Your task to perform on an android device: How do I get to the nearest Sprint Store? Image 0: 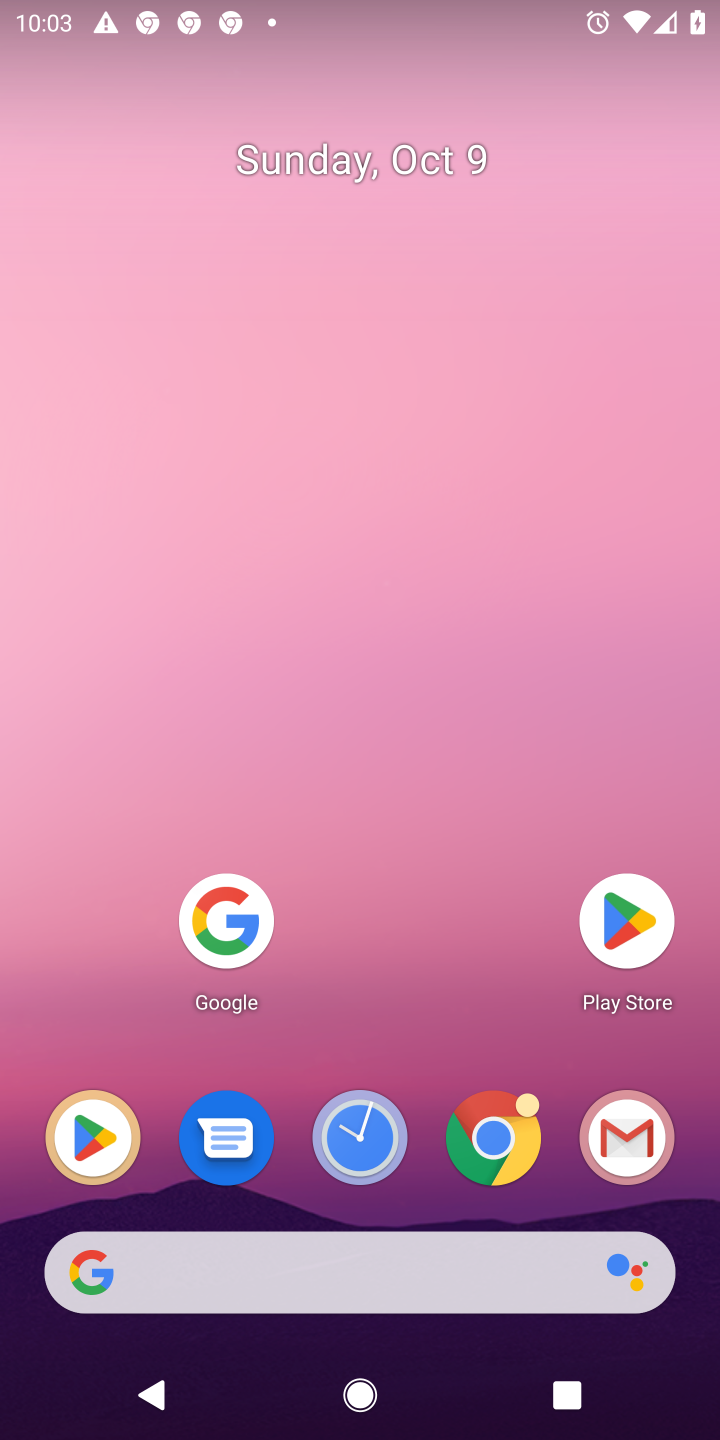
Step 0: click (226, 895)
Your task to perform on an android device: How do I get to the nearest Sprint Store? Image 1: 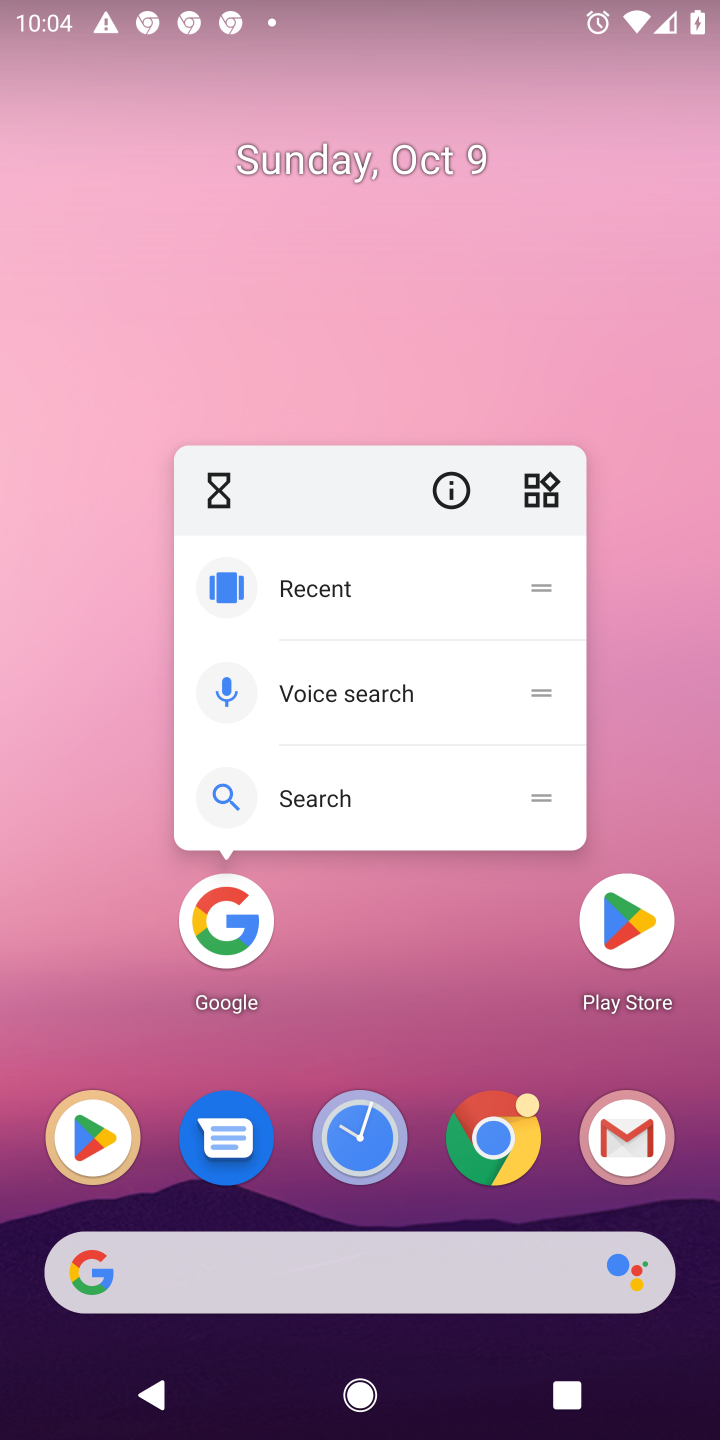
Step 1: click (240, 918)
Your task to perform on an android device: How do I get to the nearest Sprint Store? Image 2: 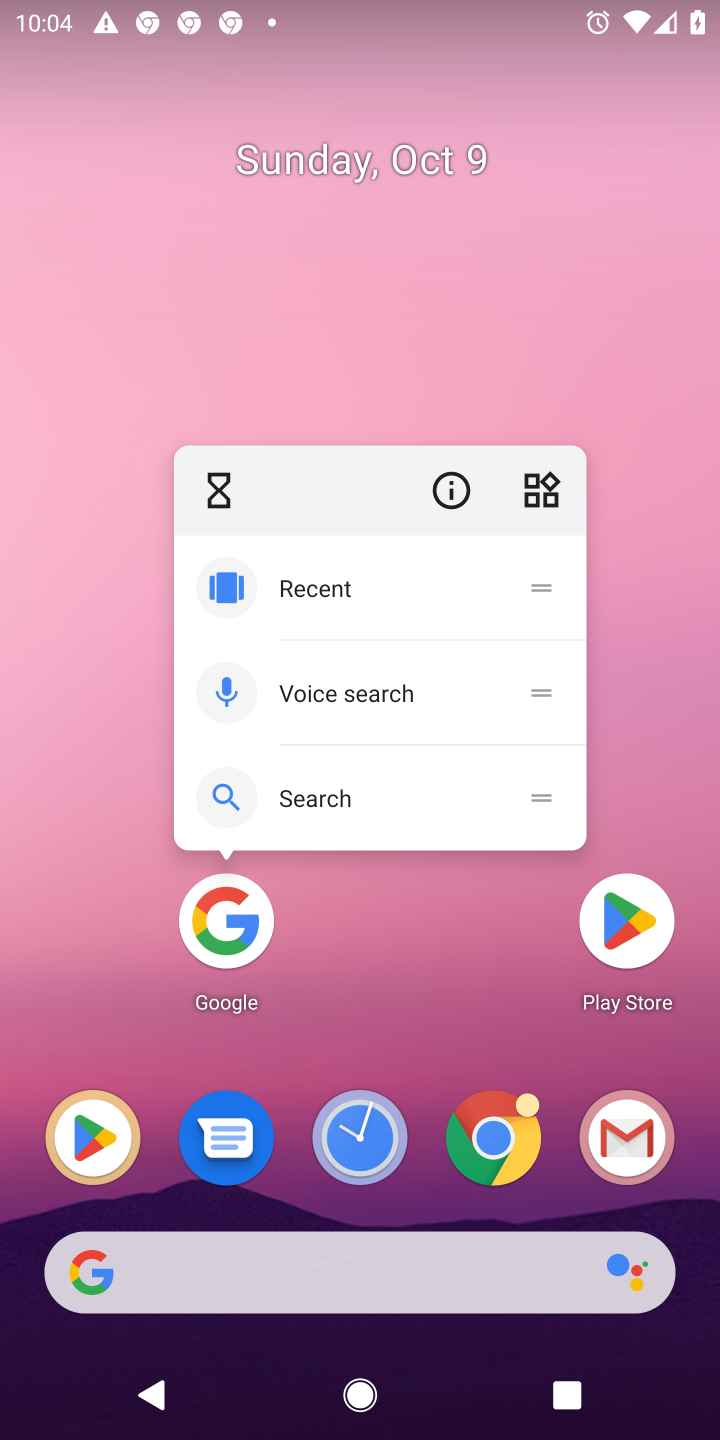
Step 2: click (233, 912)
Your task to perform on an android device: How do I get to the nearest Sprint Store? Image 3: 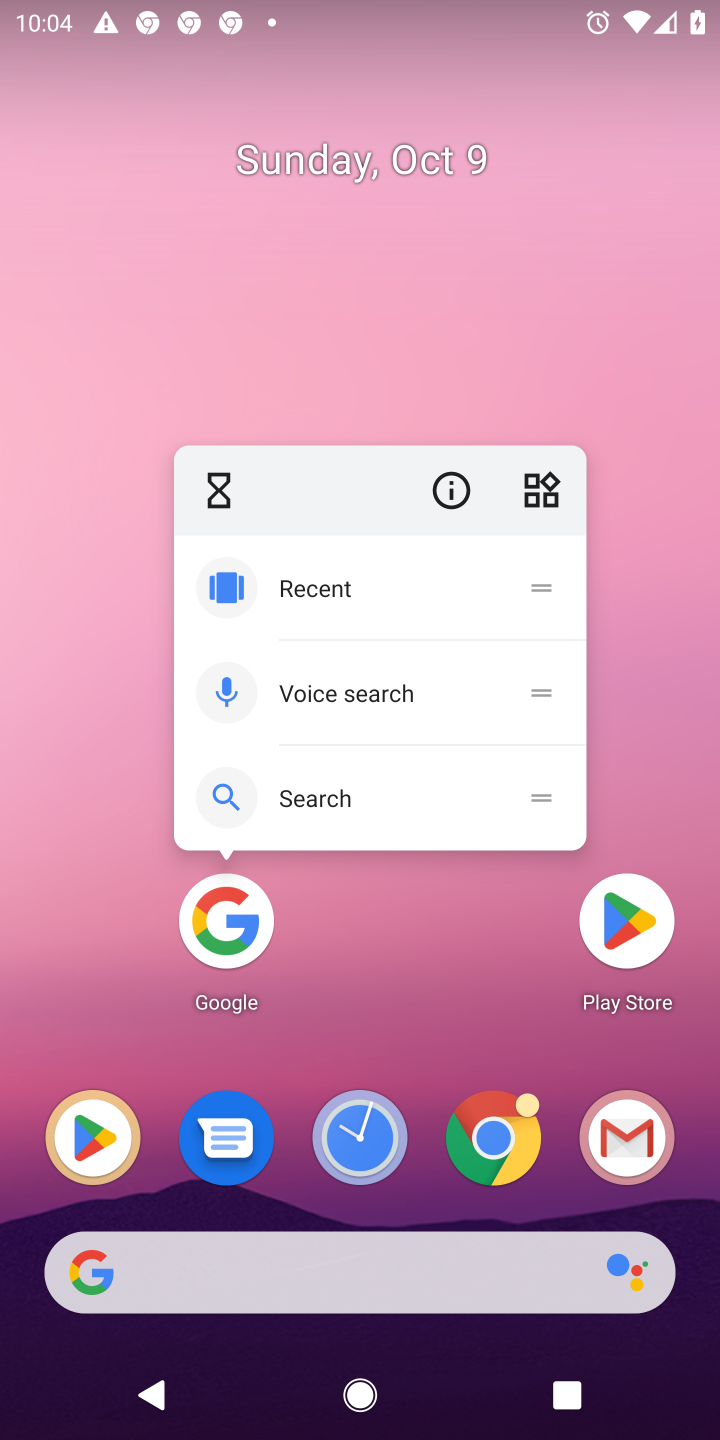
Step 3: click (233, 925)
Your task to perform on an android device: How do I get to the nearest Sprint Store? Image 4: 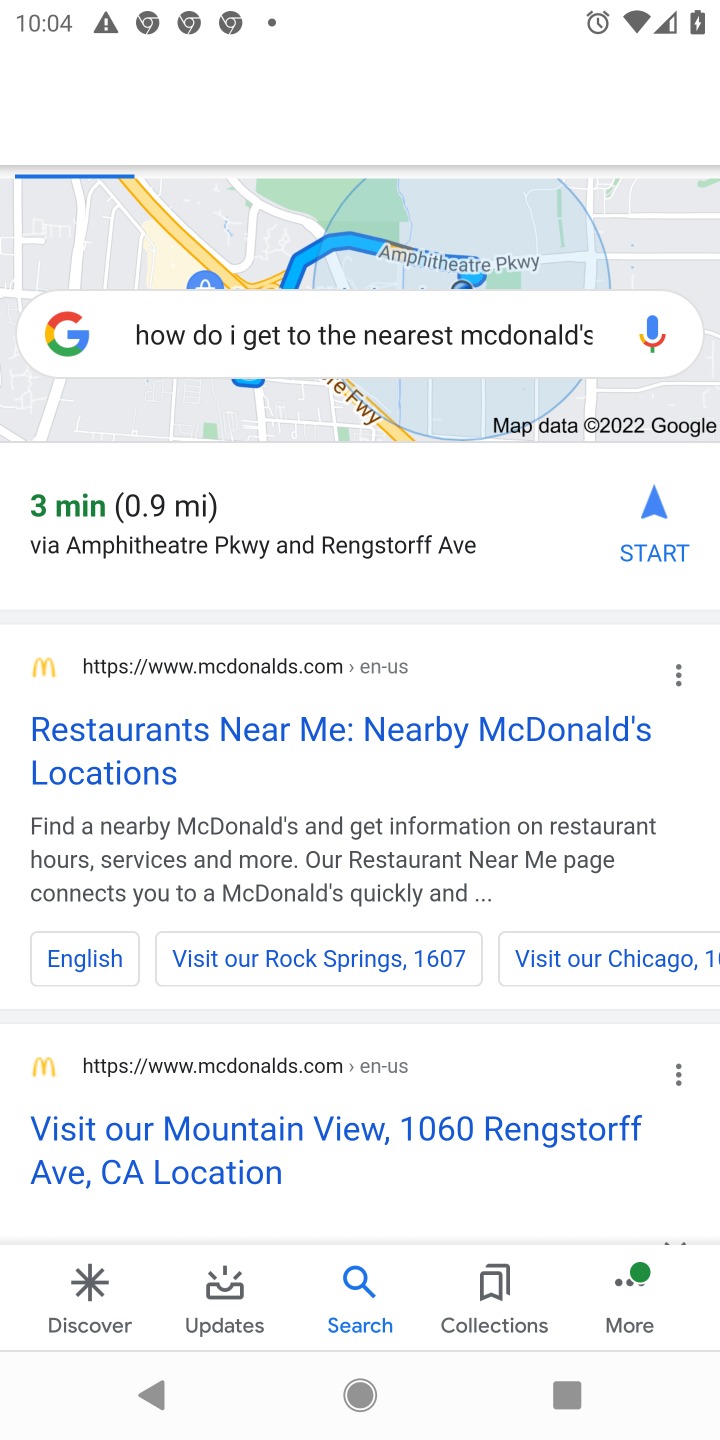
Step 4: click (390, 327)
Your task to perform on an android device: How do I get to the nearest Sprint Store? Image 5: 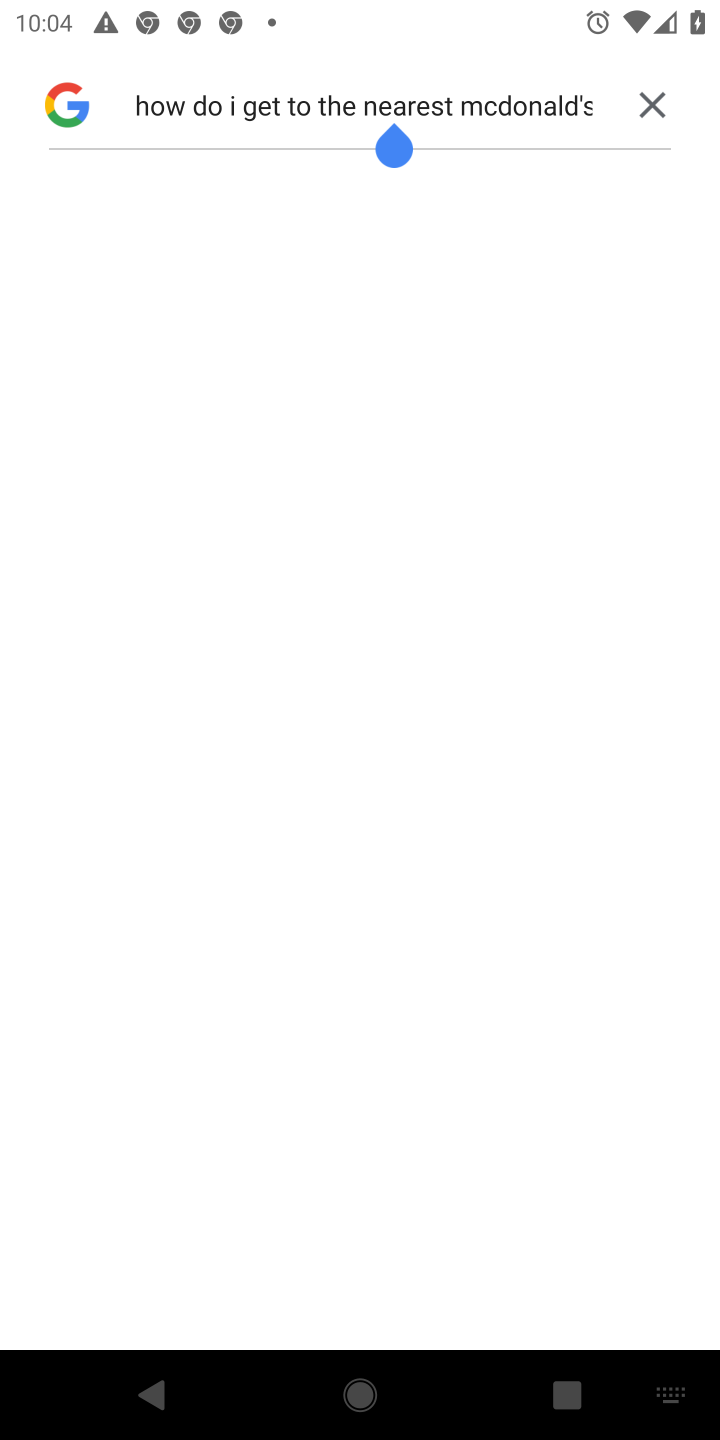
Step 5: click (646, 99)
Your task to perform on an android device: How do I get to the nearest Sprint Store? Image 6: 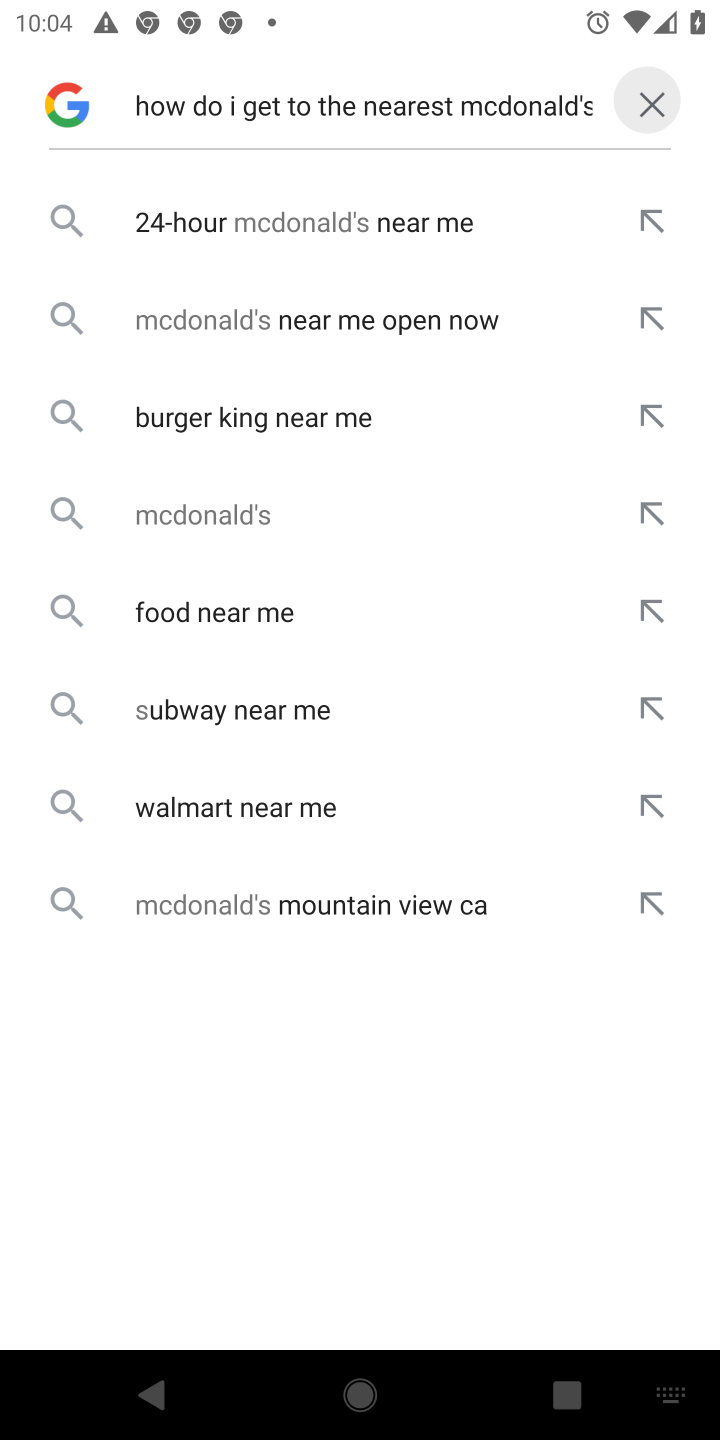
Step 6: click (647, 98)
Your task to perform on an android device: How do I get to the nearest Sprint Store? Image 7: 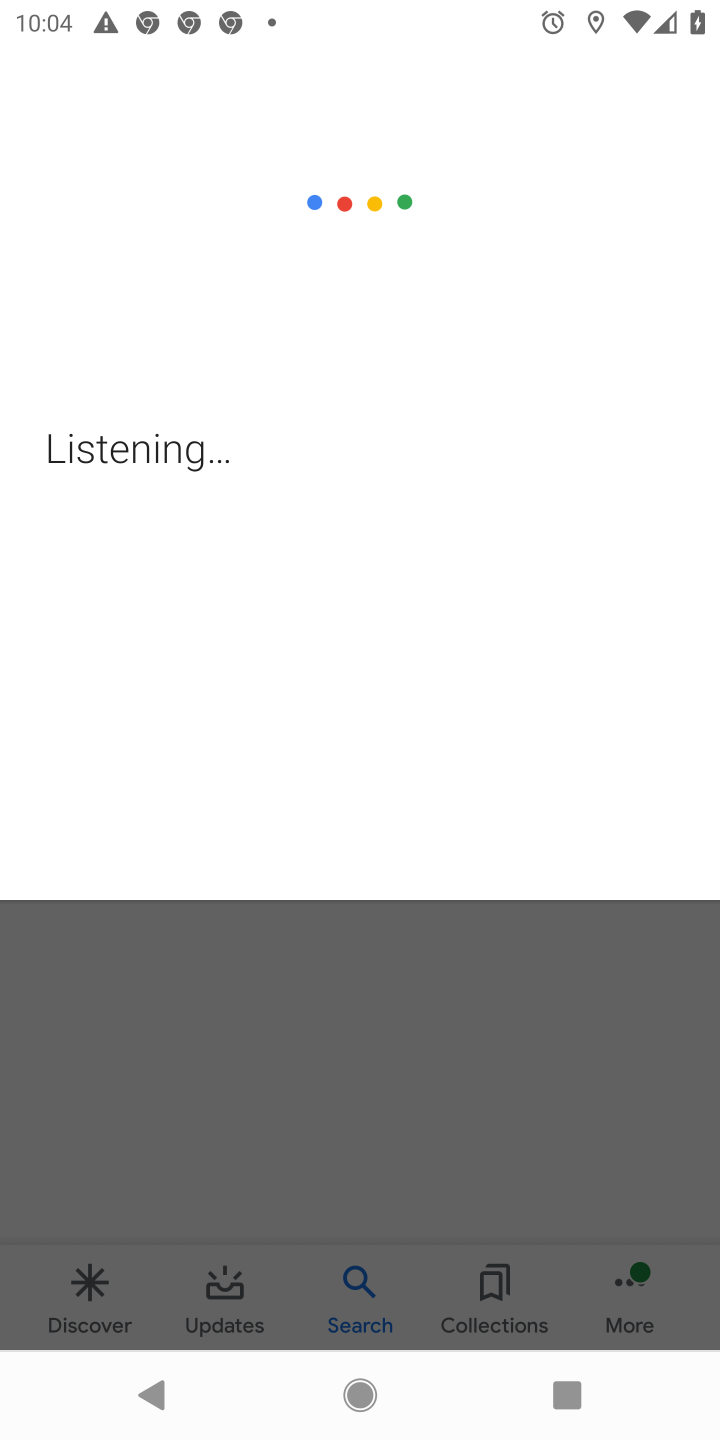
Step 7: press back button
Your task to perform on an android device: How do I get to the nearest Sprint Store? Image 8: 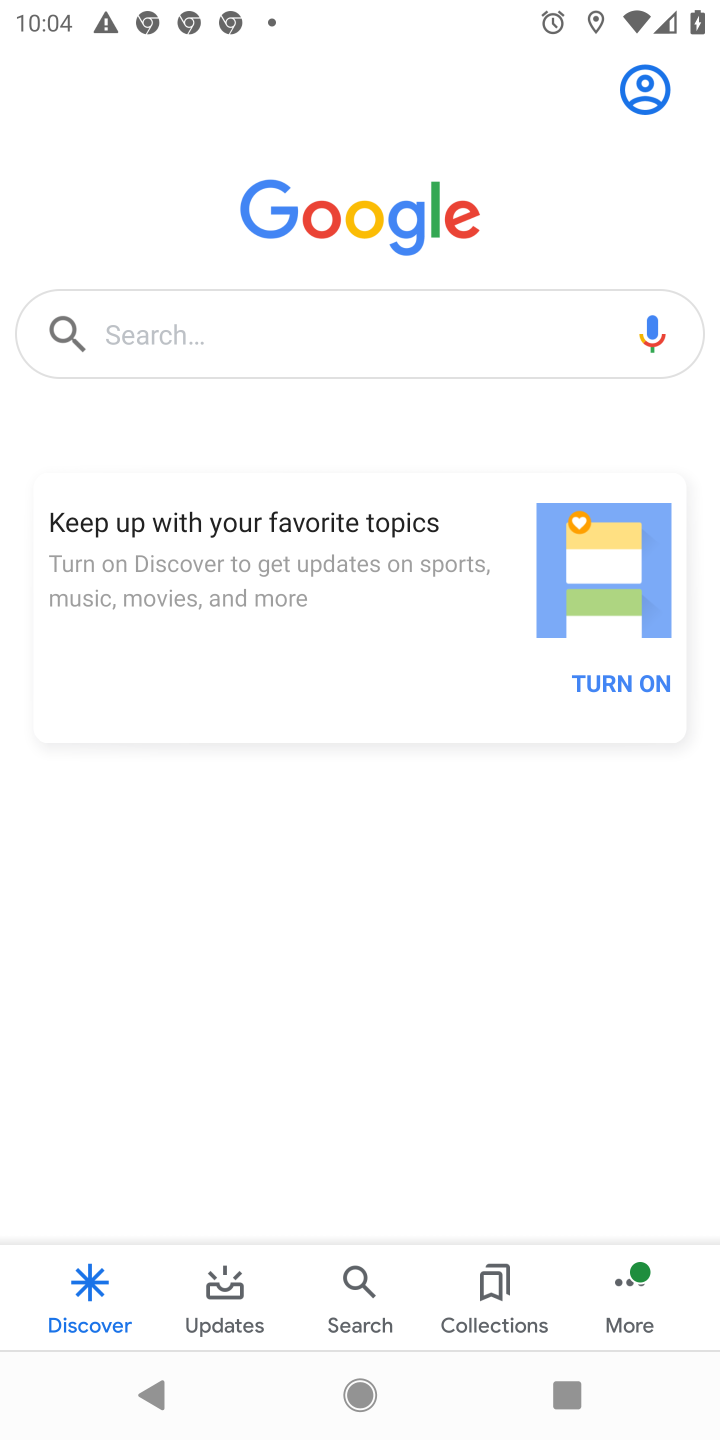
Step 8: click (308, 329)
Your task to perform on an android device: How do I get to the nearest Sprint Store? Image 9: 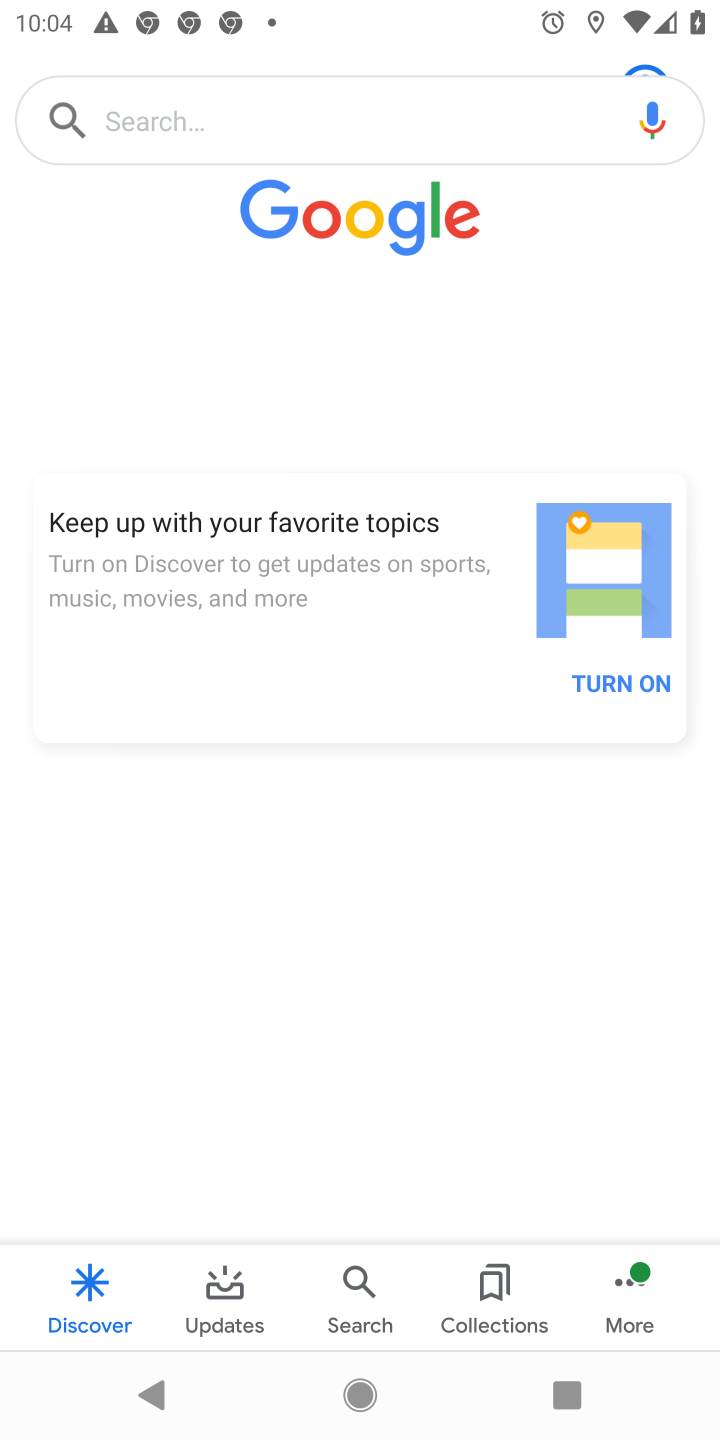
Step 9: click (280, 325)
Your task to perform on an android device: How do I get to the nearest Sprint Store? Image 10: 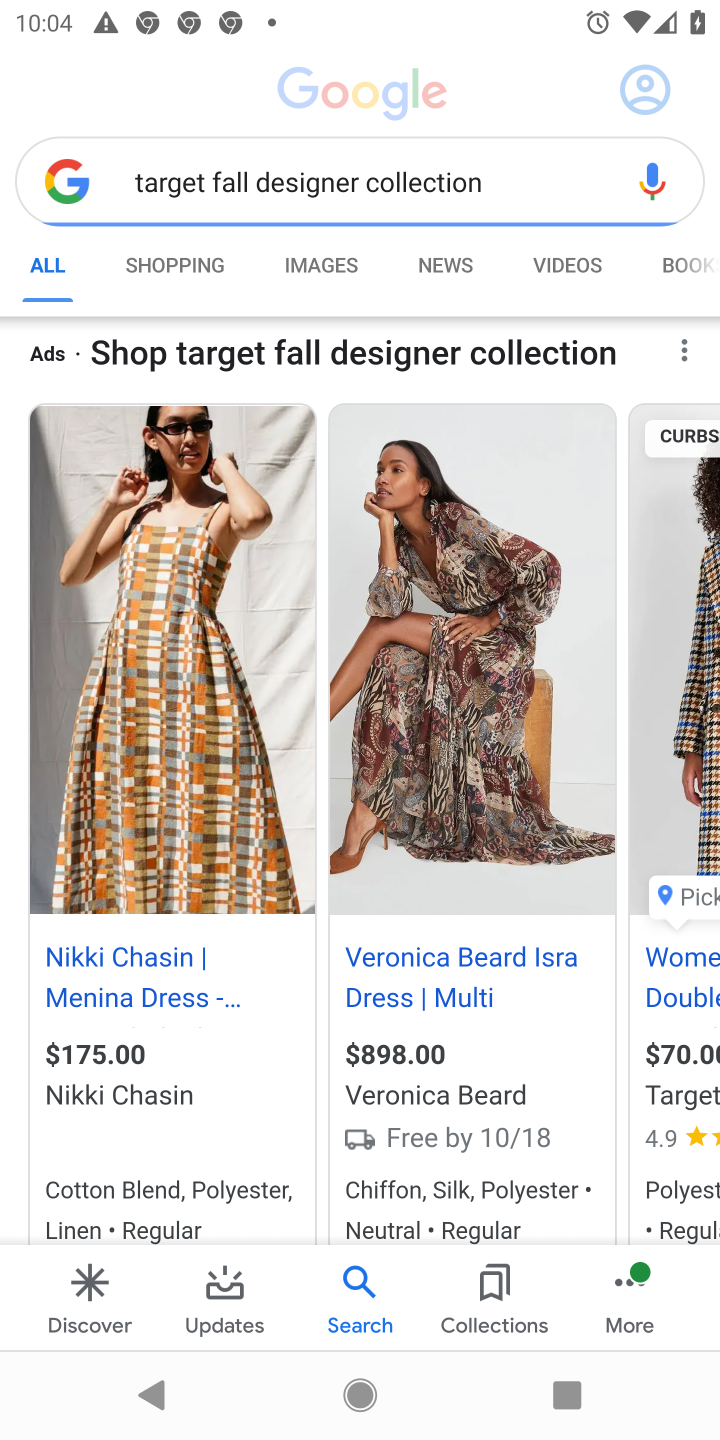
Step 10: type "How do I get to the nearest Sprint Store? "
Your task to perform on an android device: How do I get to the nearest Sprint Store? Image 11: 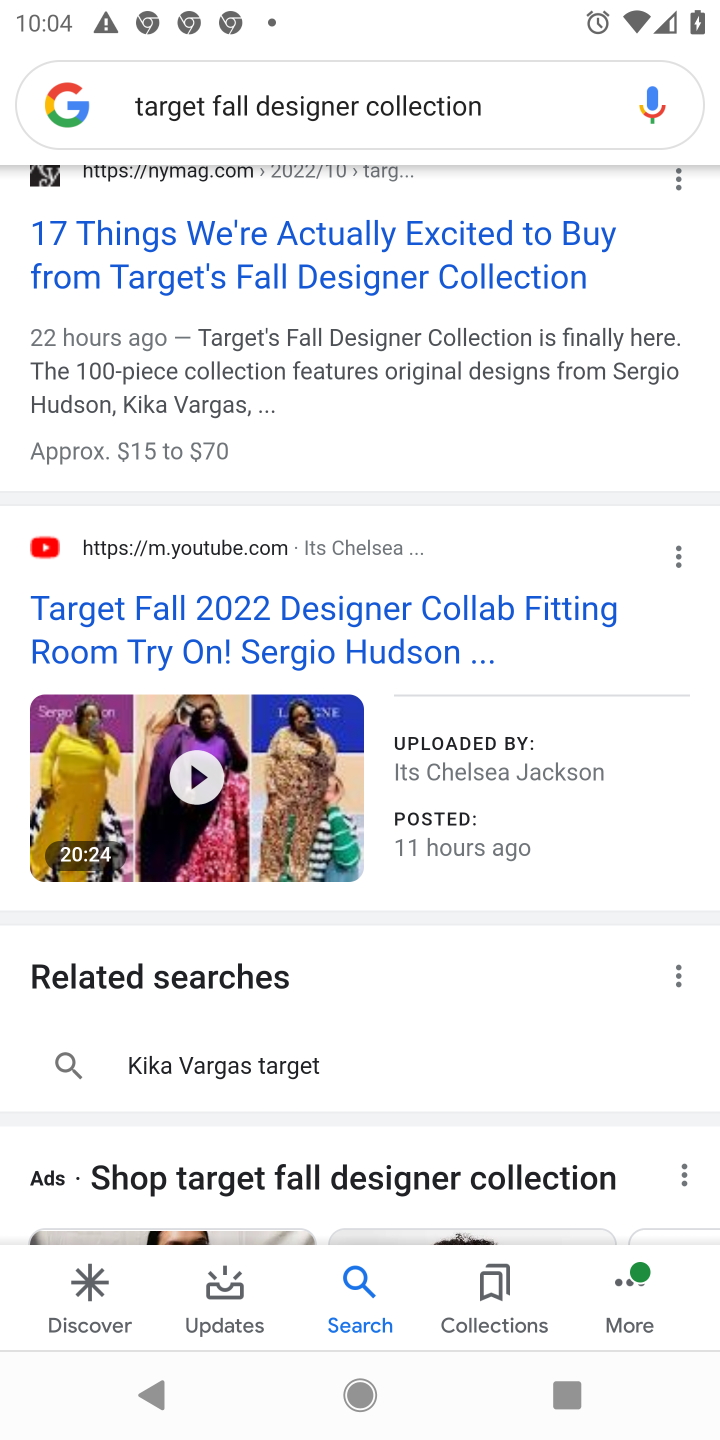
Step 11: click (517, 94)
Your task to perform on an android device: How do I get to the nearest Sprint Store? Image 12: 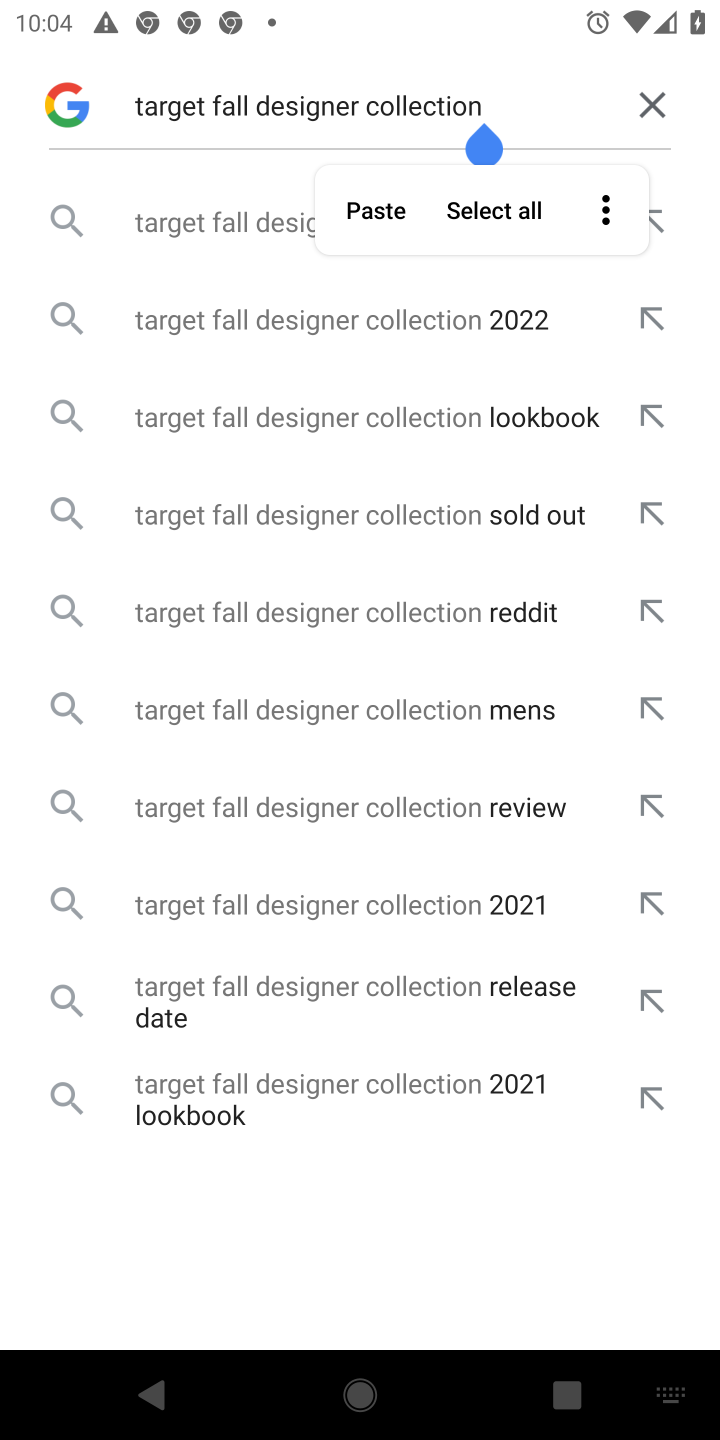
Step 12: click (636, 106)
Your task to perform on an android device: How do I get to the nearest Sprint Store? Image 13: 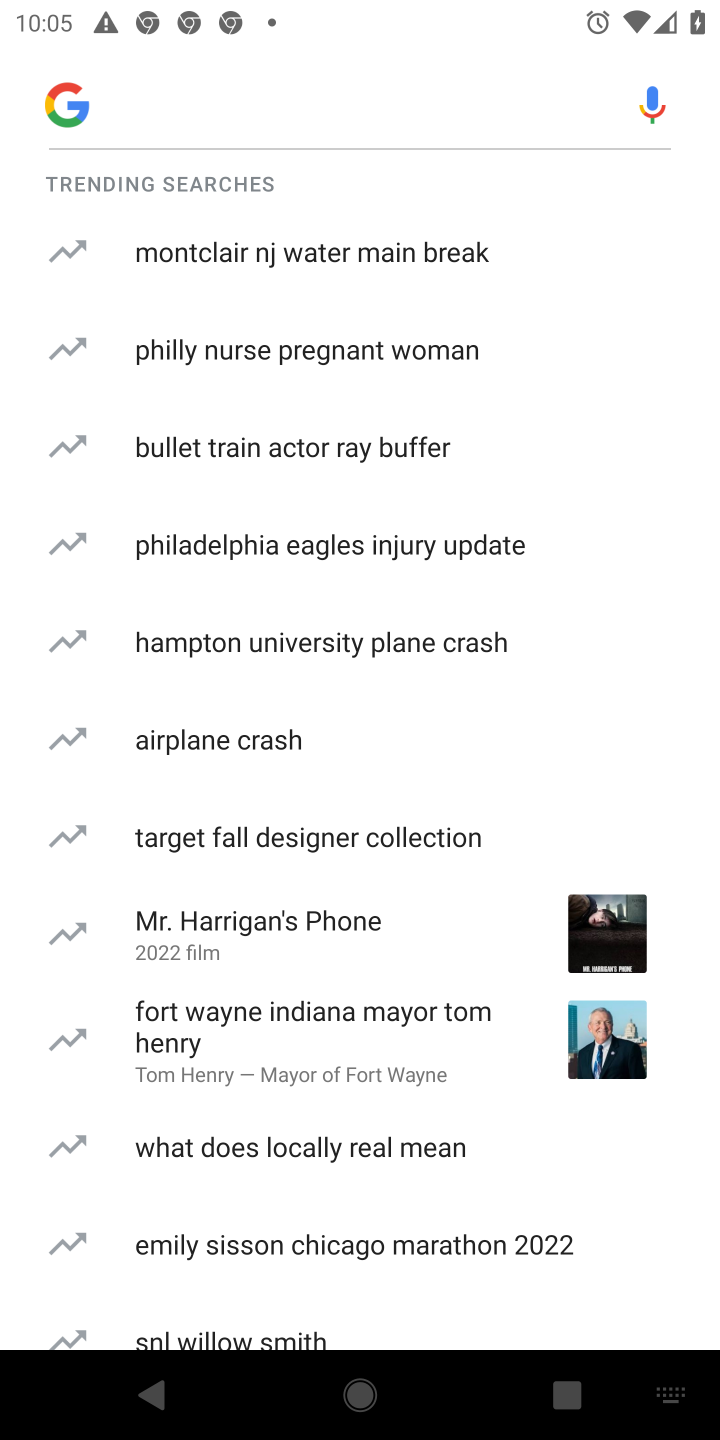
Step 13: click (328, 114)
Your task to perform on an android device: How do I get to the nearest Sprint Store? Image 14: 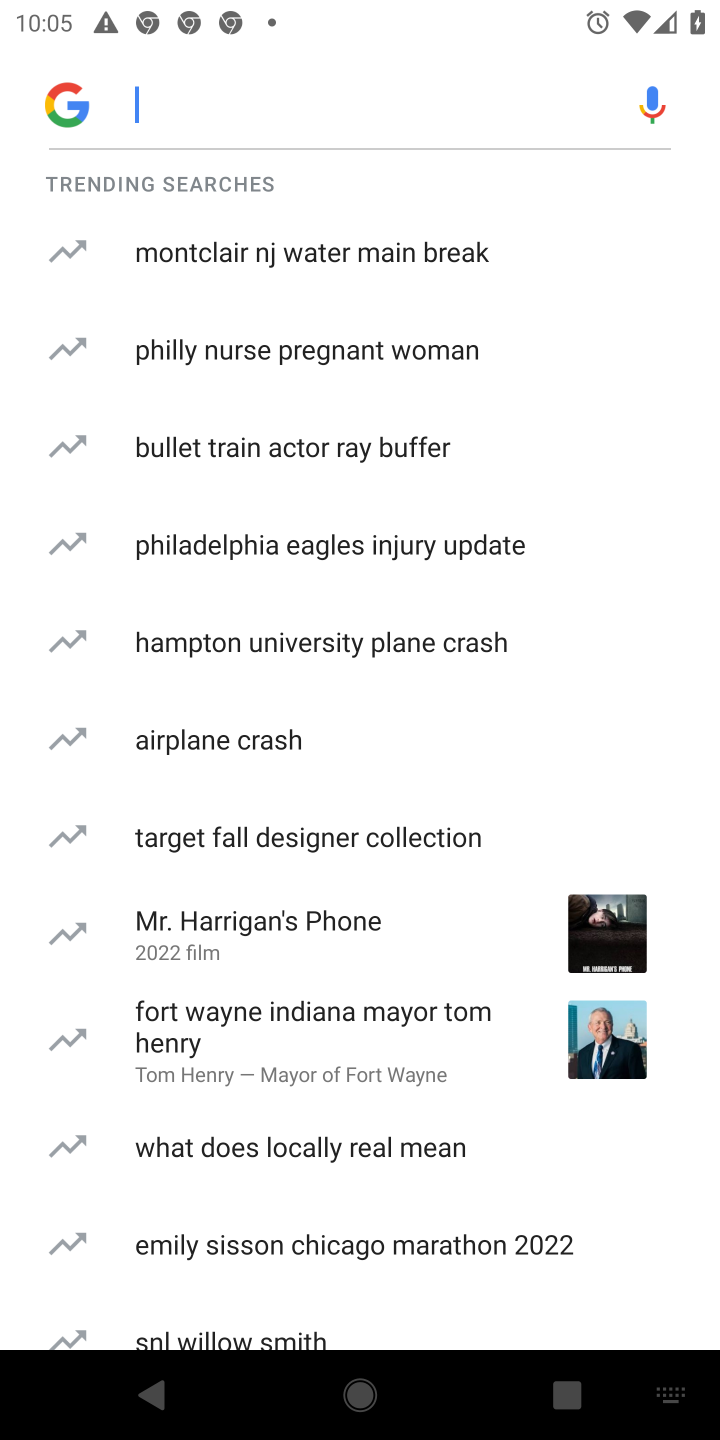
Step 14: type "How do I get to the nearest Sprint Store? "
Your task to perform on an android device: How do I get to the nearest Sprint Store? Image 15: 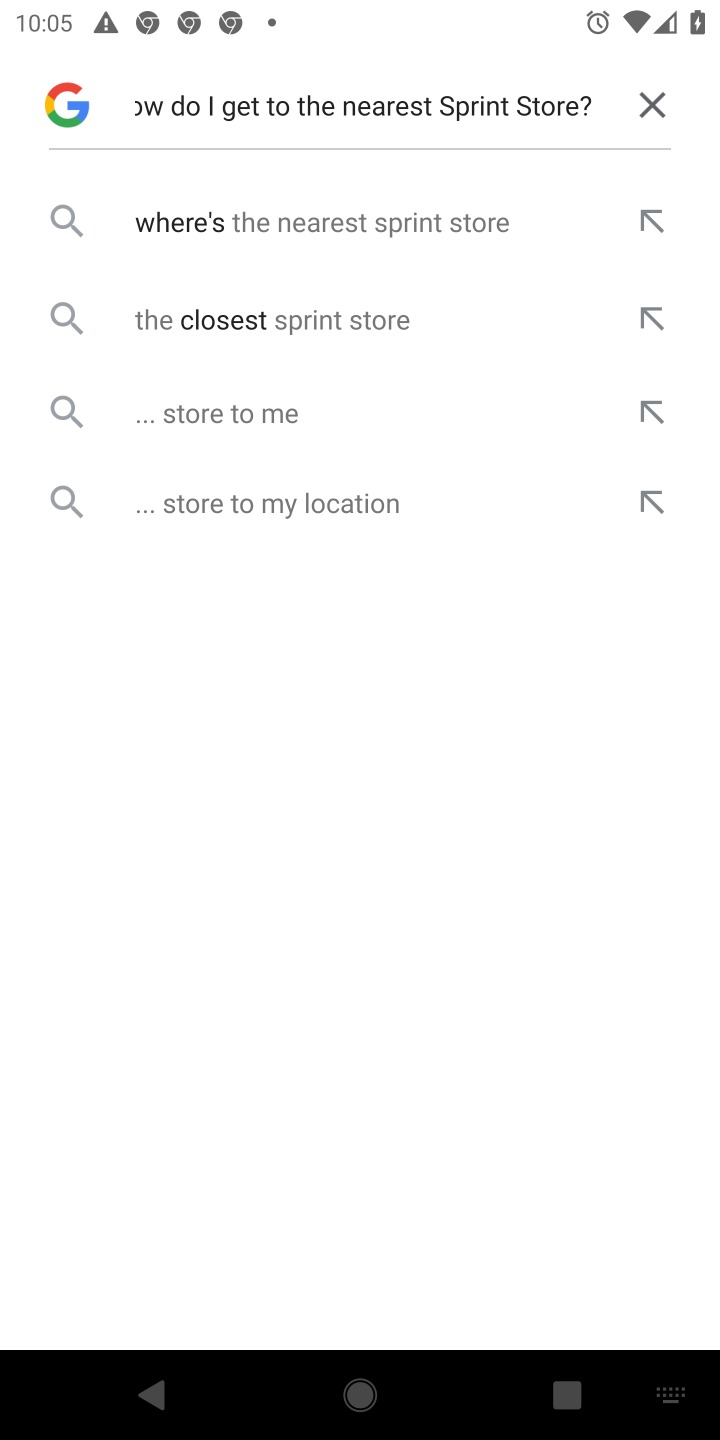
Step 15: click (294, 208)
Your task to perform on an android device: How do I get to the nearest Sprint Store? Image 16: 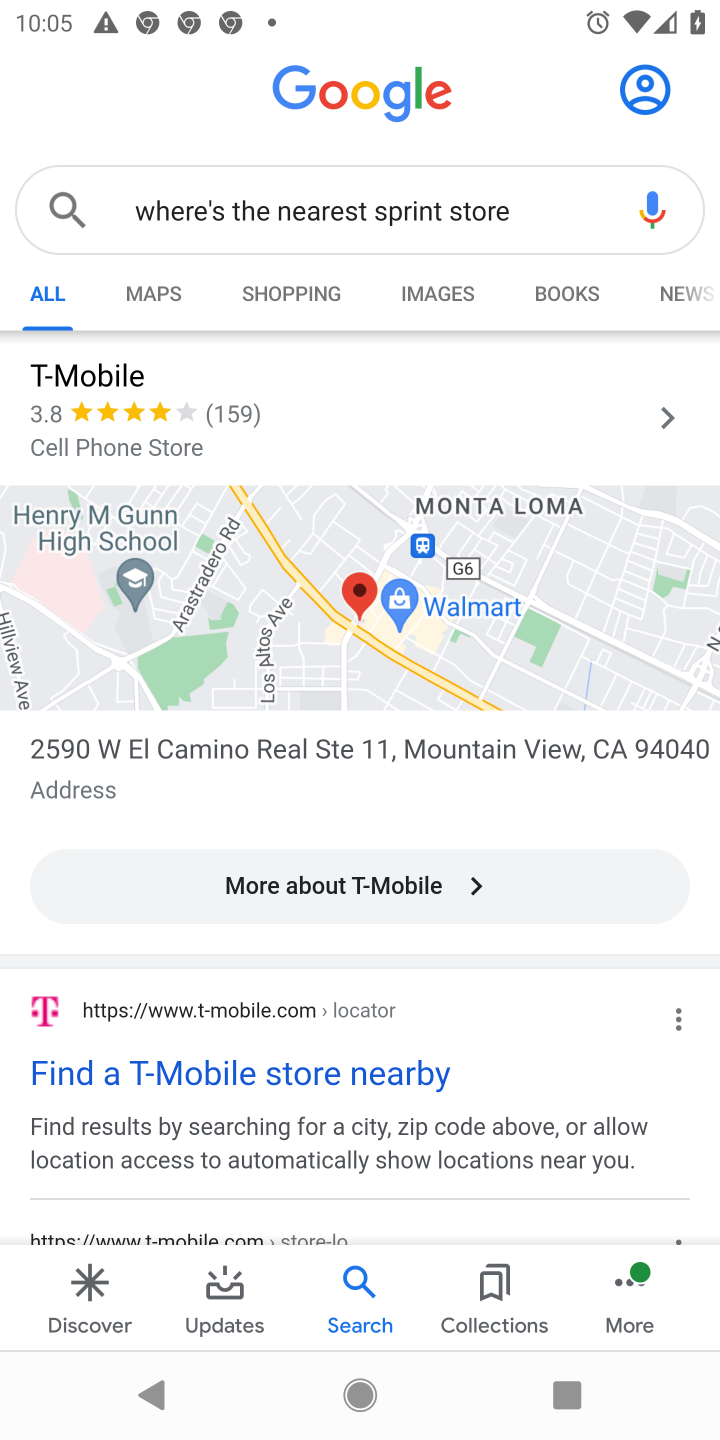
Step 16: task complete